Your task to perform on an android device: toggle translation in the chrome app Image 0: 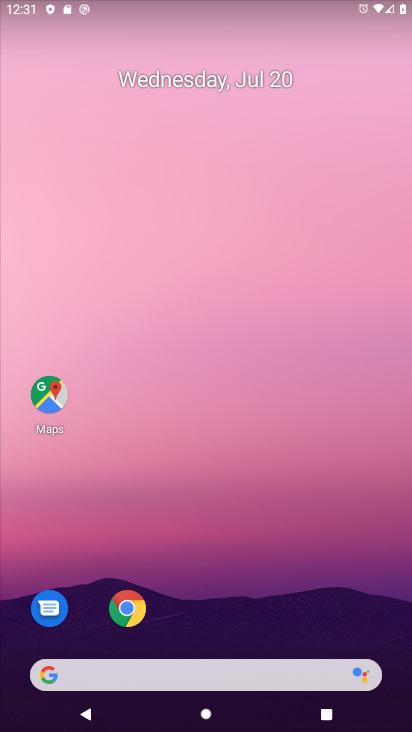
Step 0: drag from (207, 675) to (229, 392)
Your task to perform on an android device: toggle translation in the chrome app Image 1: 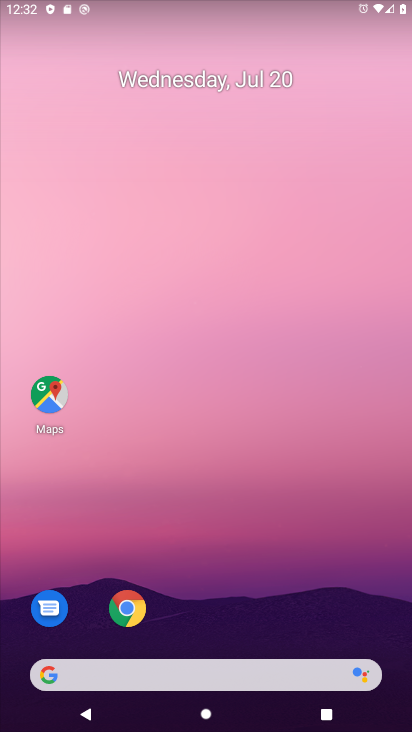
Step 1: click (127, 607)
Your task to perform on an android device: toggle translation in the chrome app Image 2: 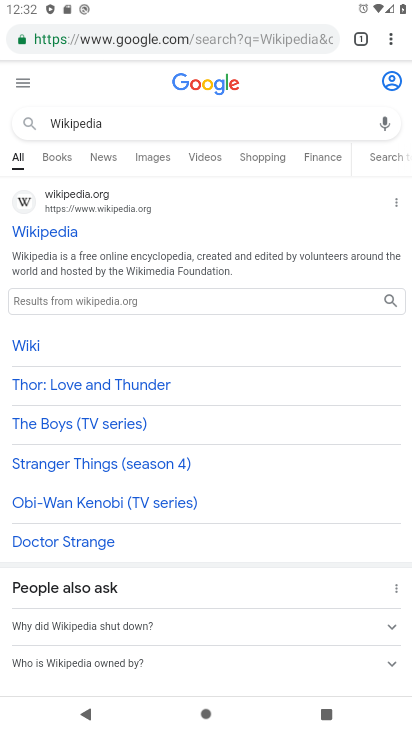
Step 2: click (391, 38)
Your task to perform on an android device: toggle translation in the chrome app Image 3: 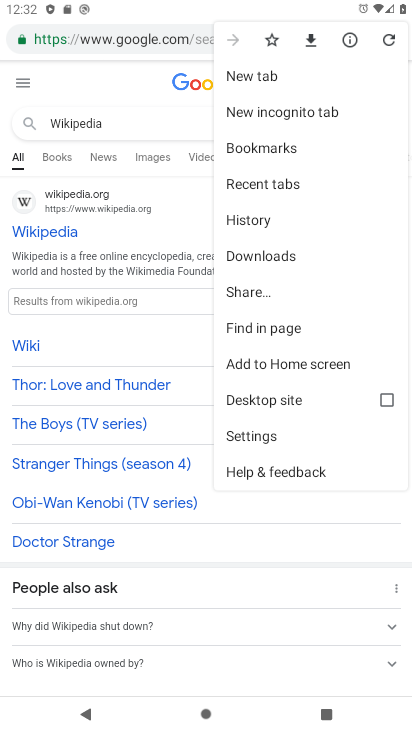
Step 3: click (261, 437)
Your task to perform on an android device: toggle translation in the chrome app Image 4: 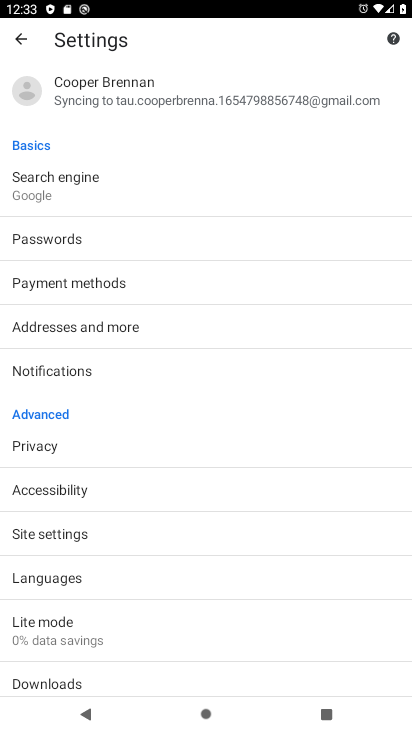
Step 4: click (57, 579)
Your task to perform on an android device: toggle translation in the chrome app Image 5: 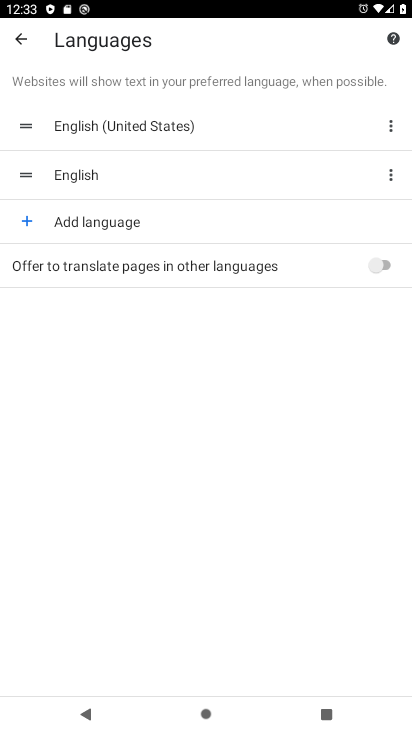
Step 5: click (382, 263)
Your task to perform on an android device: toggle translation in the chrome app Image 6: 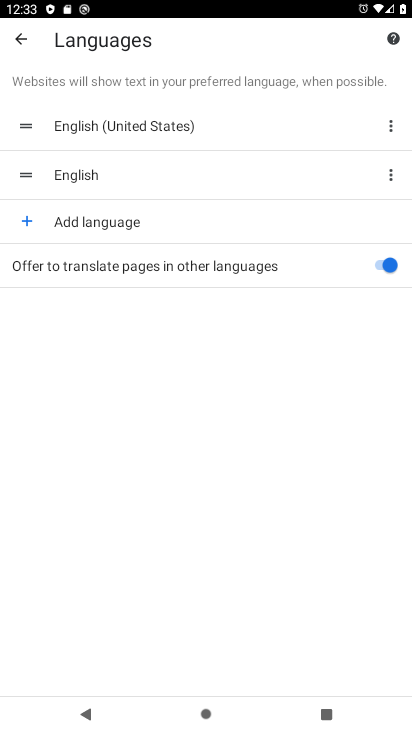
Step 6: task complete